Your task to perform on an android device: Open Chrome and go to the settings page Image 0: 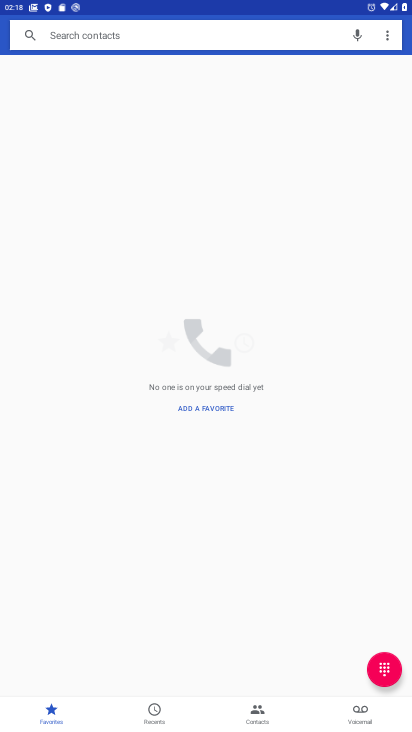
Step 0: press home button
Your task to perform on an android device: Open Chrome and go to the settings page Image 1: 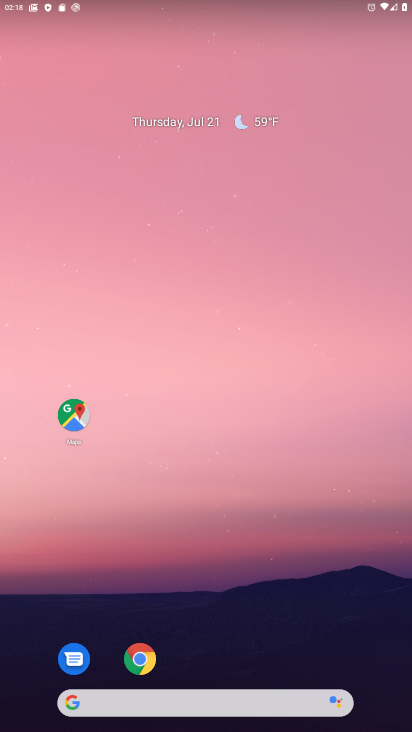
Step 1: drag from (318, 621) to (271, 35)
Your task to perform on an android device: Open Chrome and go to the settings page Image 2: 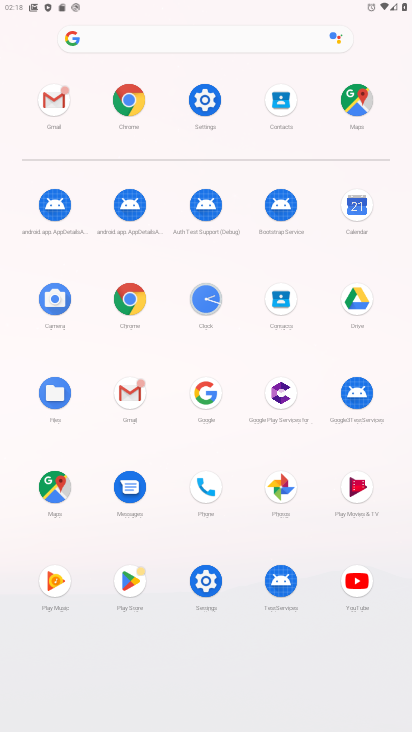
Step 2: click (129, 106)
Your task to perform on an android device: Open Chrome and go to the settings page Image 3: 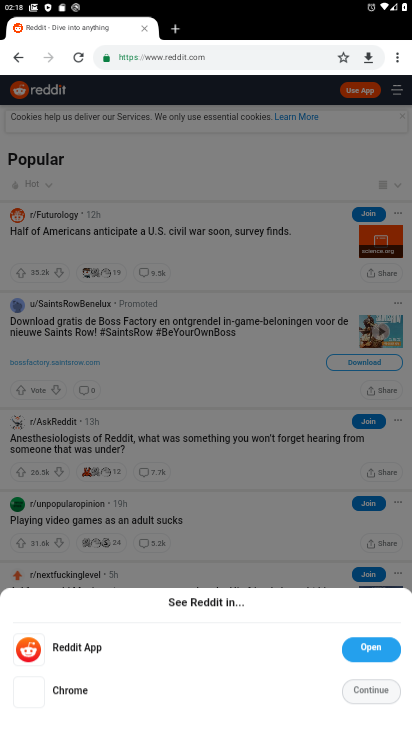
Step 3: task complete